Your task to perform on an android device: Set the phone to "Do not disturb". Image 0: 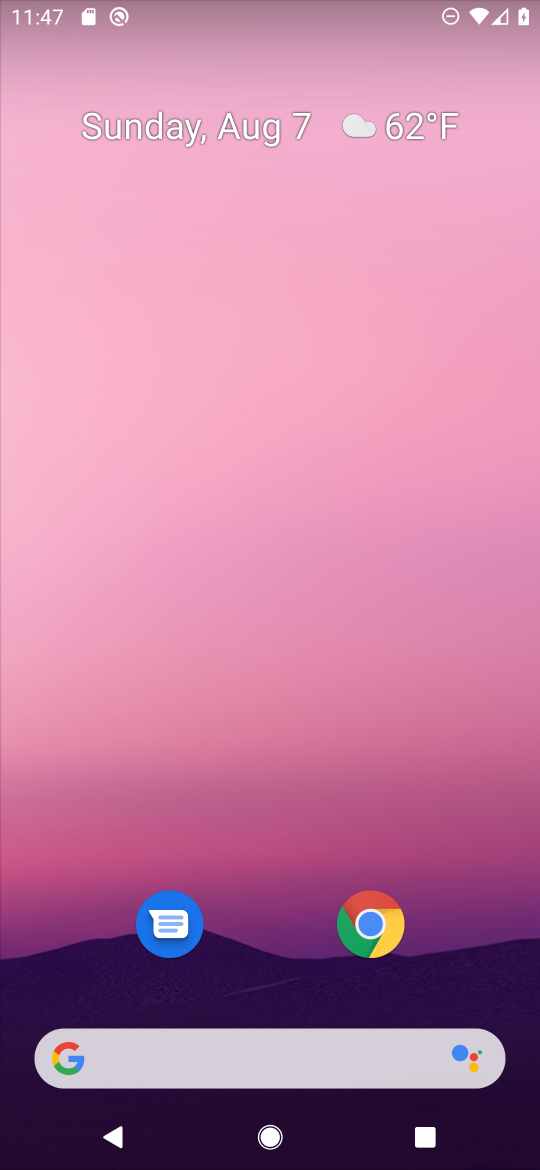
Step 0: drag from (344, 1045) to (298, 69)
Your task to perform on an android device: Set the phone to "Do not disturb". Image 1: 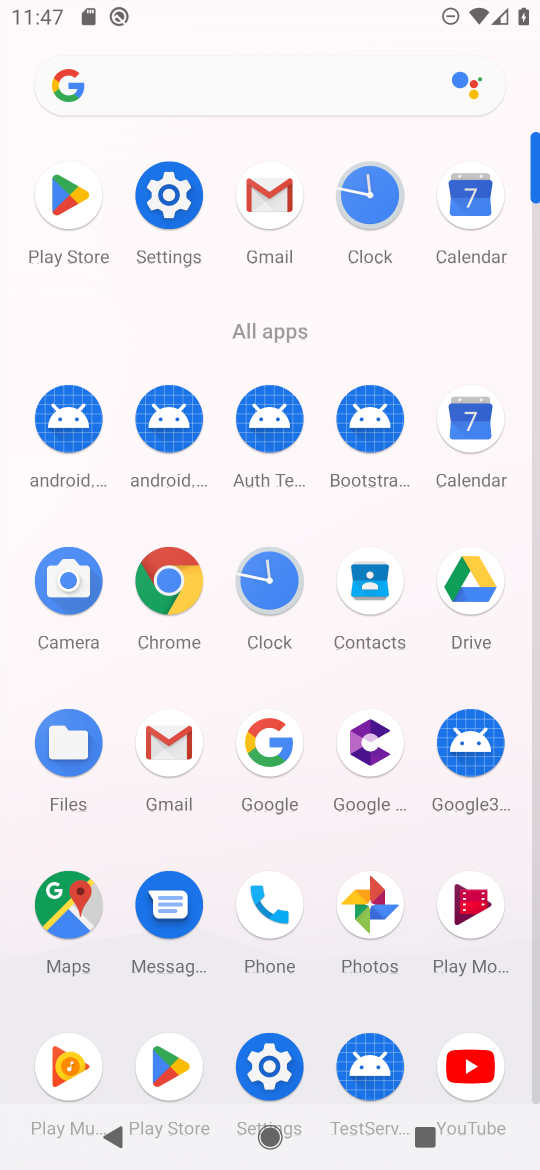
Step 1: click (257, 1078)
Your task to perform on an android device: Set the phone to "Do not disturb". Image 2: 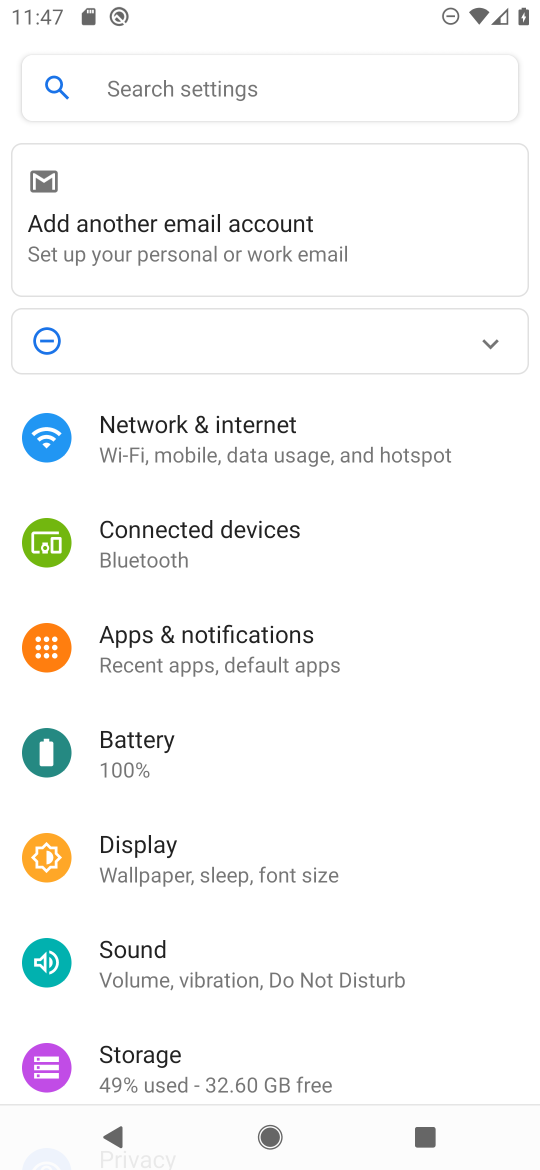
Step 2: click (261, 989)
Your task to perform on an android device: Set the phone to "Do not disturb". Image 3: 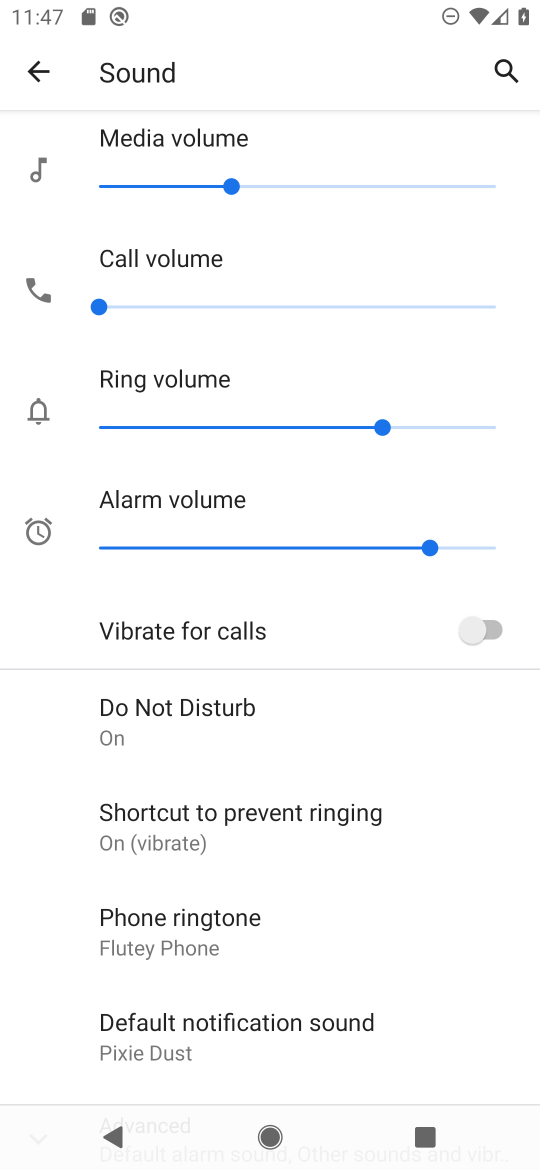
Step 3: click (158, 725)
Your task to perform on an android device: Set the phone to "Do not disturb". Image 4: 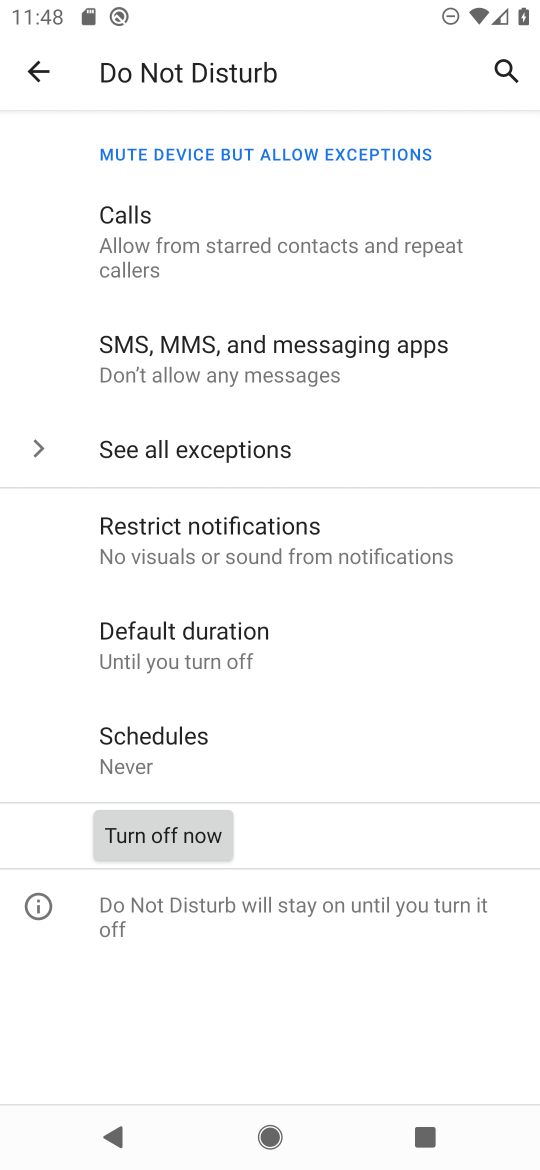
Step 4: task complete